Your task to perform on an android device: change keyboard looks Image 0: 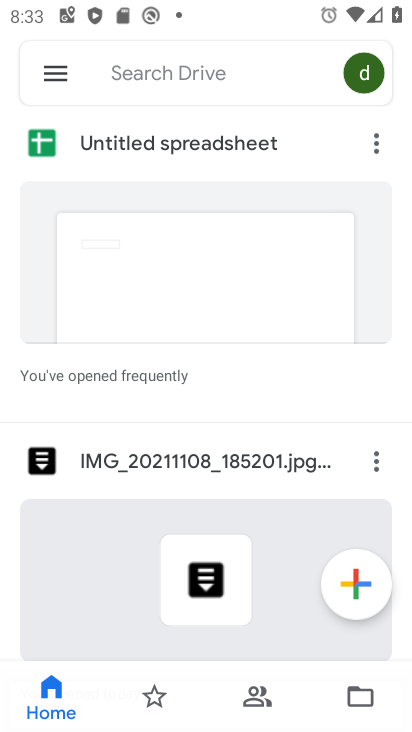
Step 0: press home button
Your task to perform on an android device: change keyboard looks Image 1: 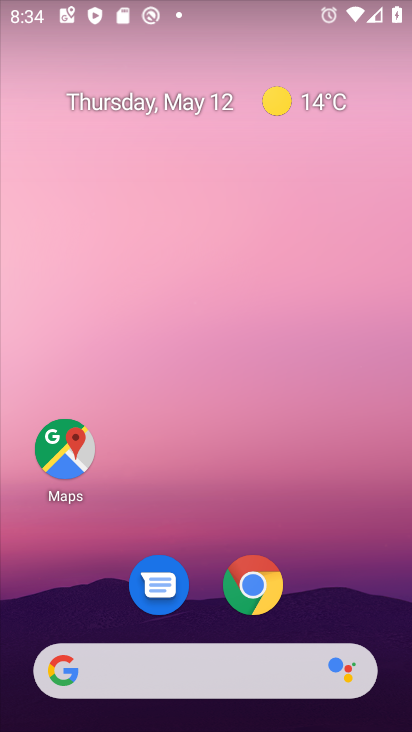
Step 1: drag from (259, 469) to (191, 47)
Your task to perform on an android device: change keyboard looks Image 2: 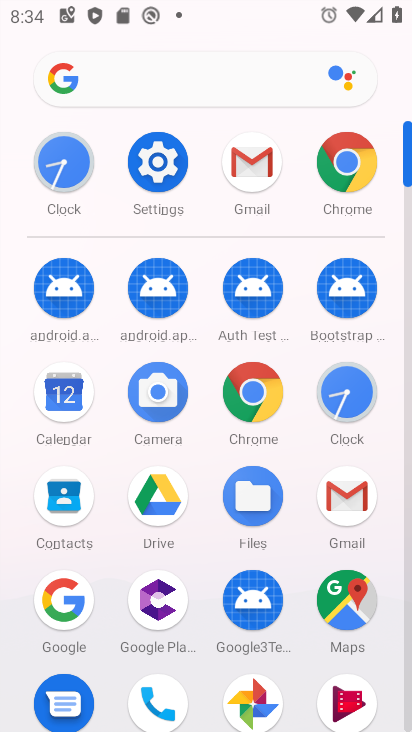
Step 2: click (172, 164)
Your task to perform on an android device: change keyboard looks Image 3: 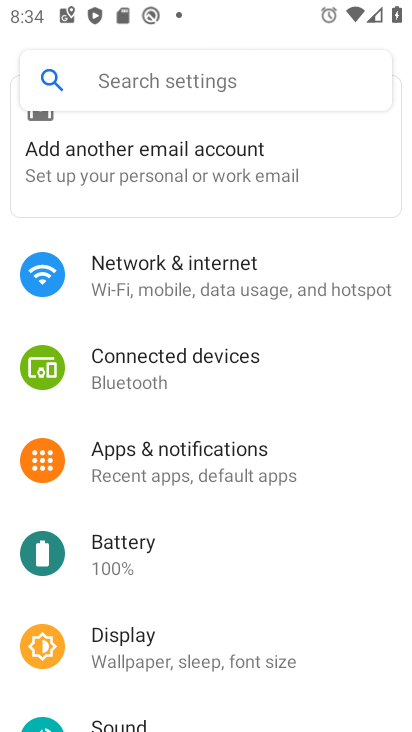
Step 3: drag from (222, 495) to (274, 224)
Your task to perform on an android device: change keyboard looks Image 4: 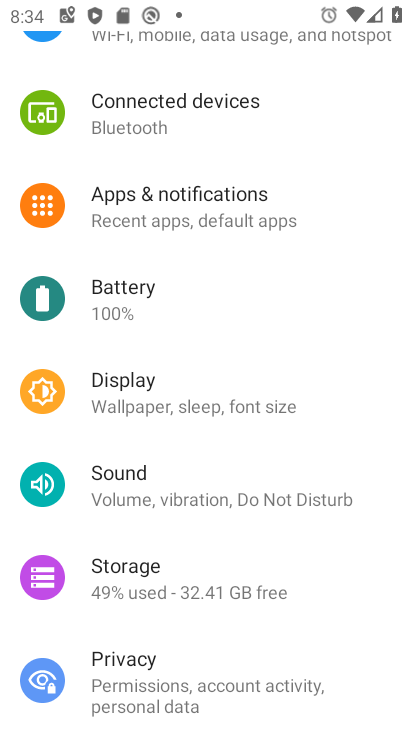
Step 4: drag from (279, 535) to (263, 106)
Your task to perform on an android device: change keyboard looks Image 5: 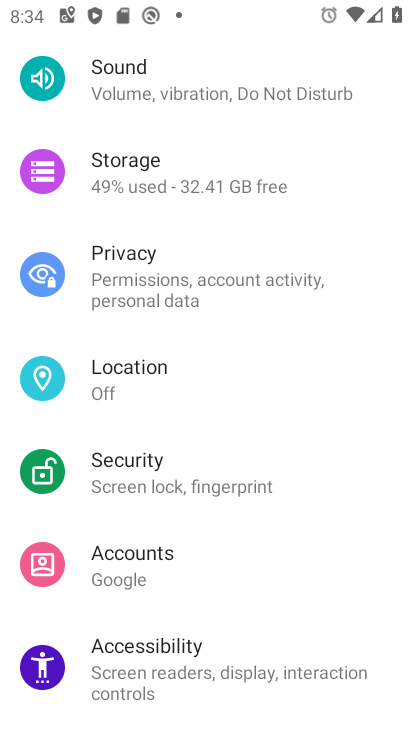
Step 5: drag from (213, 415) to (190, 96)
Your task to perform on an android device: change keyboard looks Image 6: 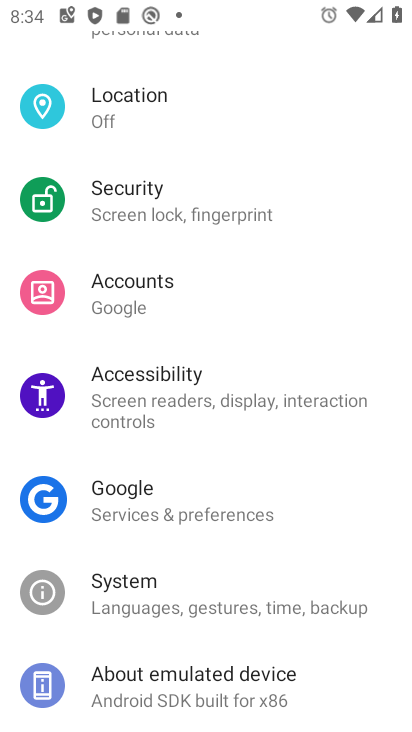
Step 6: drag from (209, 337) to (182, 108)
Your task to perform on an android device: change keyboard looks Image 7: 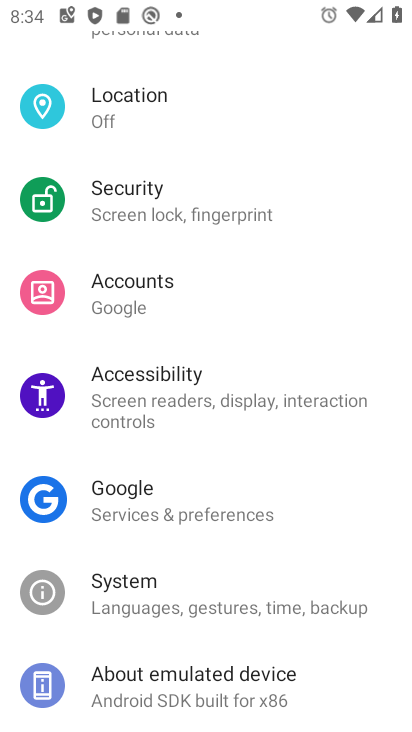
Step 7: click (225, 591)
Your task to perform on an android device: change keyboard looks Image 8: 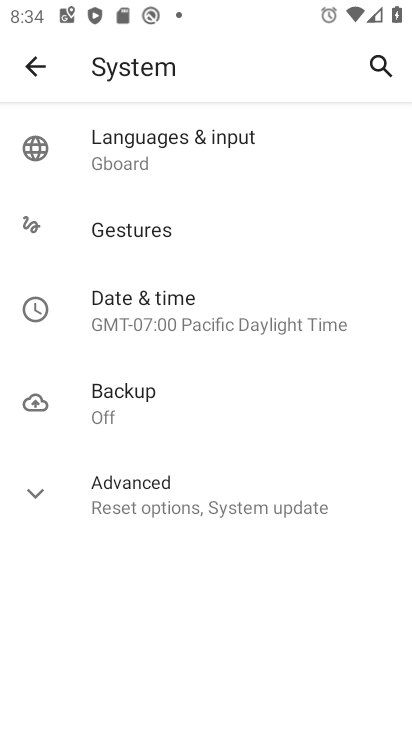
Step 8: click (130, 156)
Your task to perform on an android device: change keyboard looks Image 9: 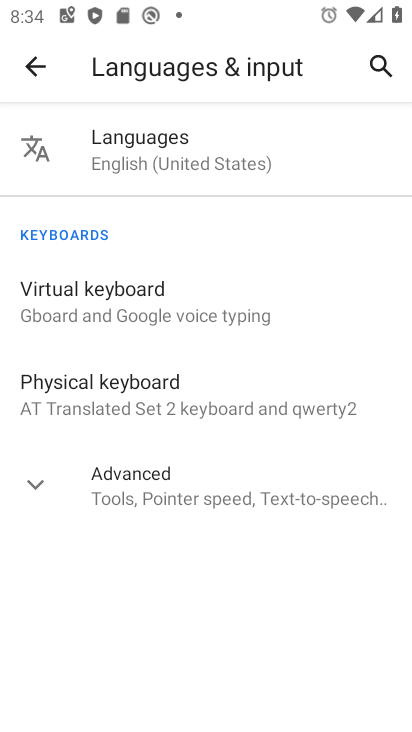
Step 9: click (163, 298)
Your task to perform on an android device: change keyboard looks Image 10: 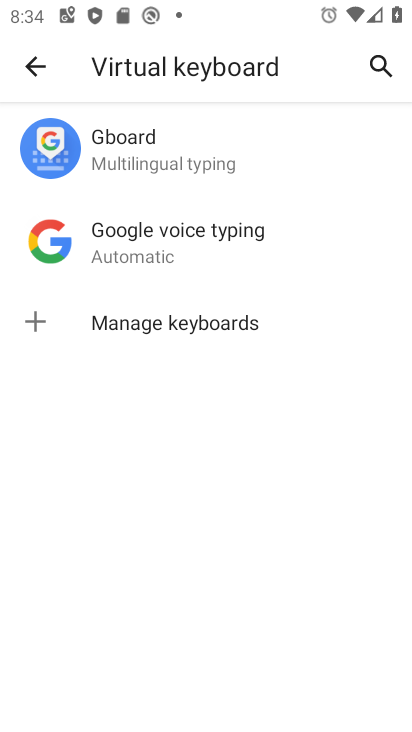
Step 10: click (142, 164)
Your task to perform on an android device: change keyboard looks Image 11: 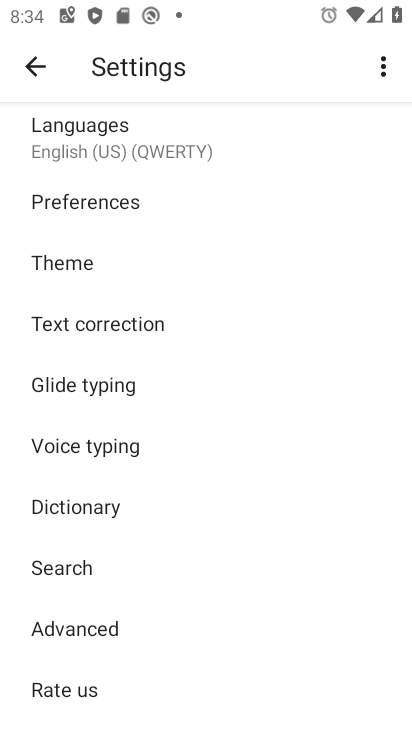
Step 11: click (86, 264)
Your task to perform on an android device: change keyboard looks Image 12: 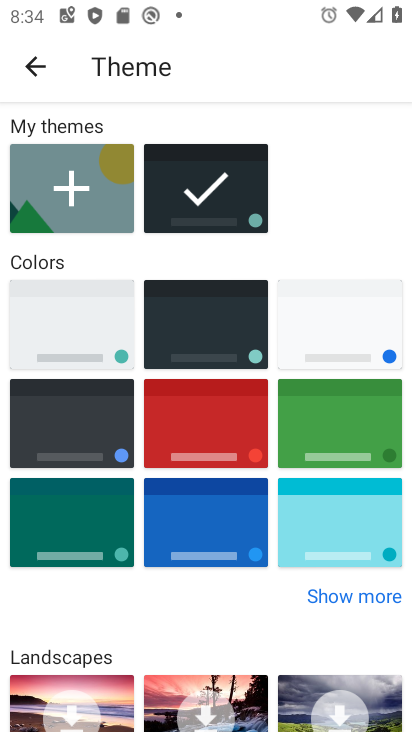
Step 12: click (82, 311)
Your task to perform on an android device: change keyboard looks Image 13: 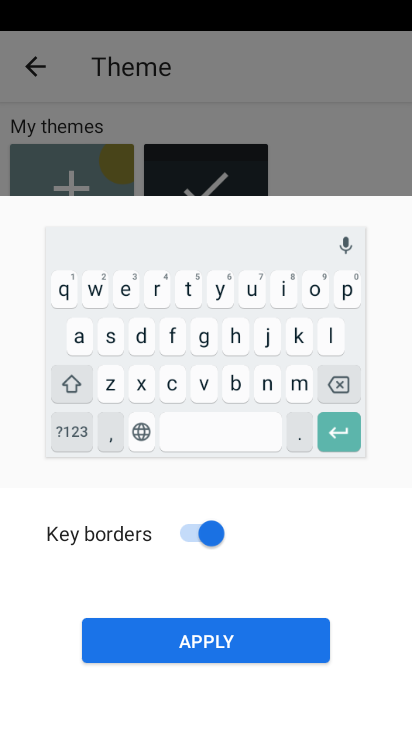
Step 13: click (247, 644)
Your task to perform on an android device: change keyboard looks Image 14: 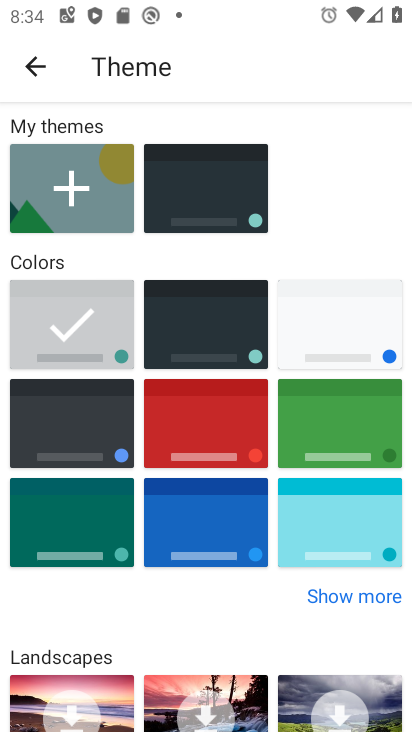
Step 14: task complete